Your task to perform on an android device: Open eBay Image 0: 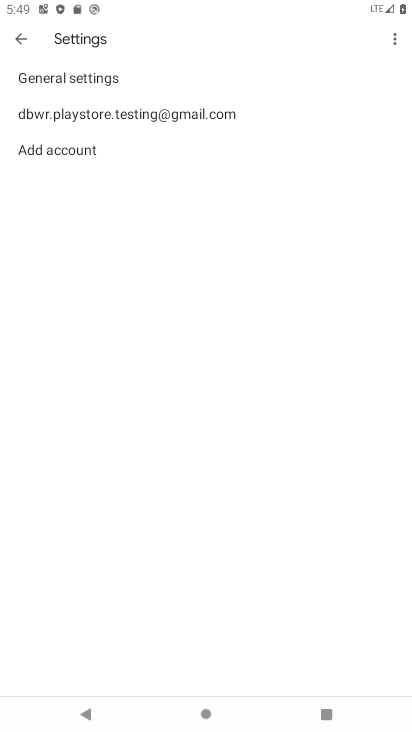
Step 0: press home button
Your task to perform on an android device: Open eBay Image 1: 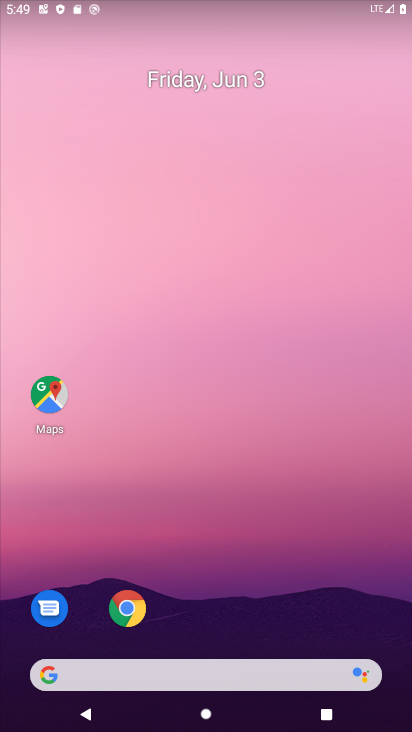
Step 1: click (127, 607)
Your task to perform on an android device: Open eBay Image 2: 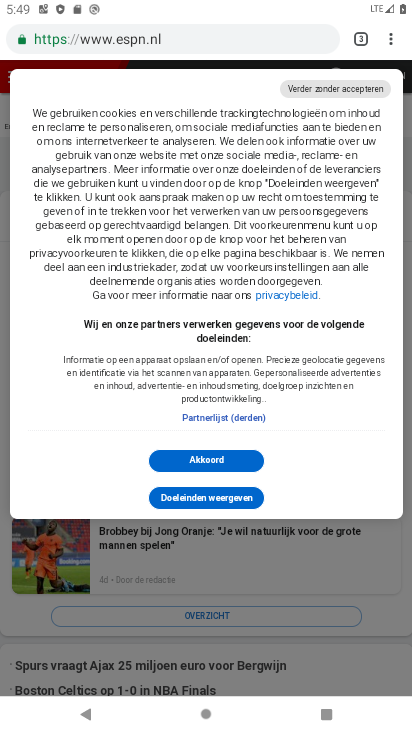
Step 2: click (354, 34)
Your task to perform on an android device: Open eBay Image 3: 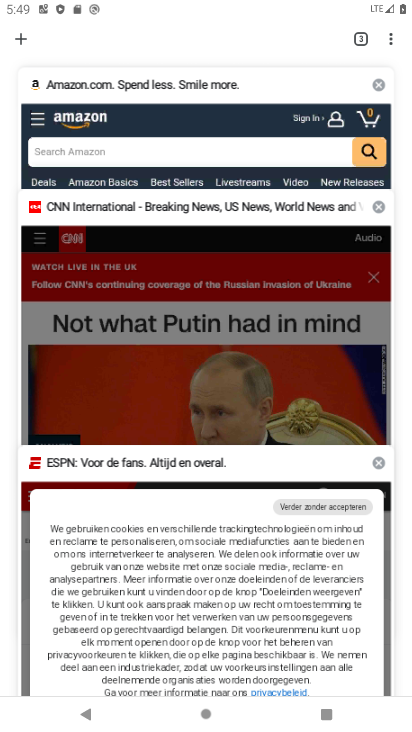
Step 3: click (22, 30)
Your task to perform on an android device: Open eBay Image 4: 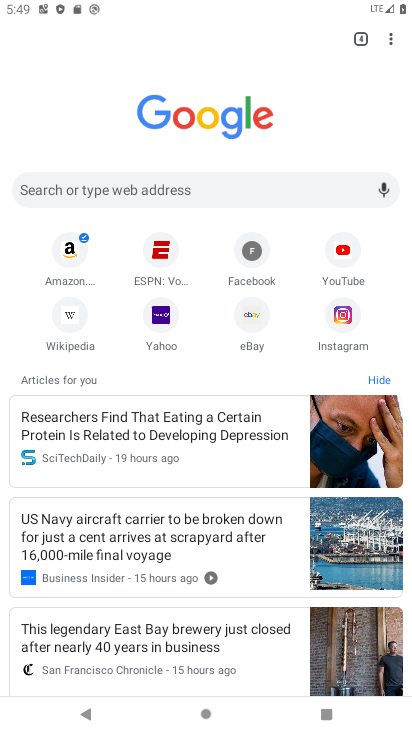
Step 4: click (256, 315)
Your task to perform on an android device: Open eBay Image 5: 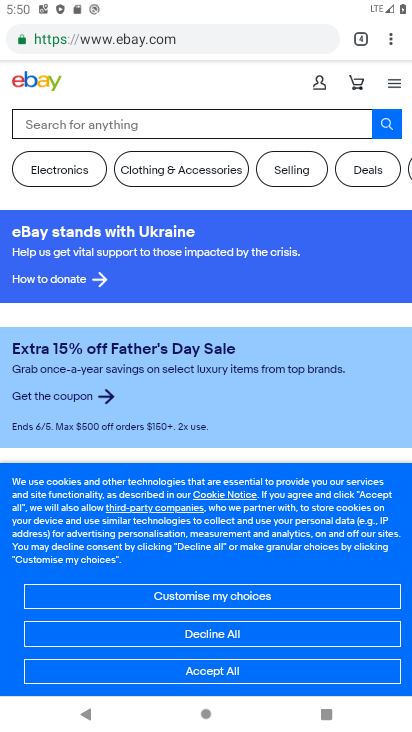
Step 5: task complete